Your task to perform on an android device: Open Chrome and go to settings Image 0: 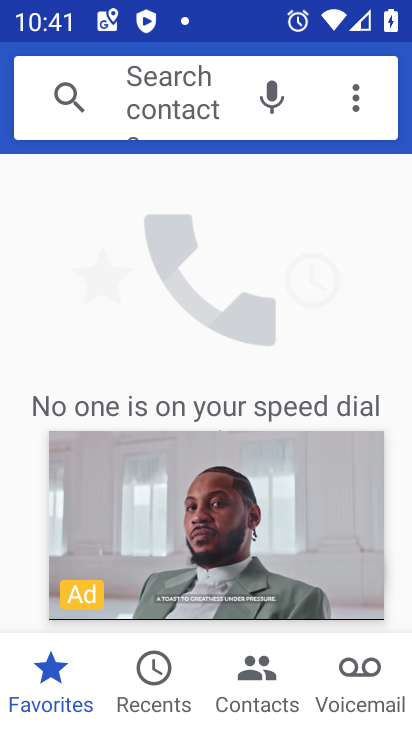
Step 0: press home button
Your task to perform on an android device: Open Chrome and go to settings Image 1: 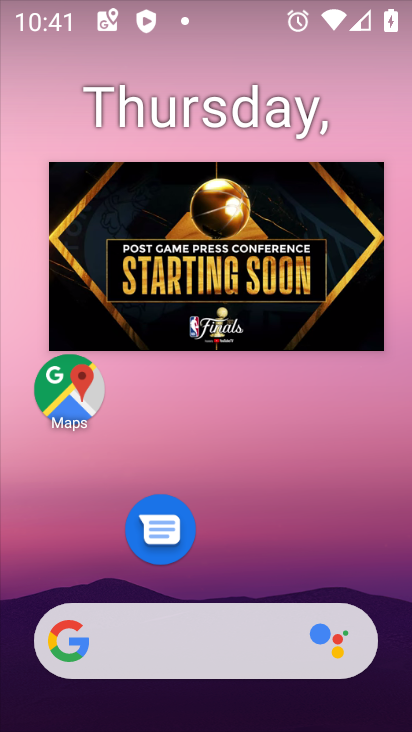
Step 1: click (291, 271)
Your task to perform on an android device: Open Chrome and go to settings Image 2: 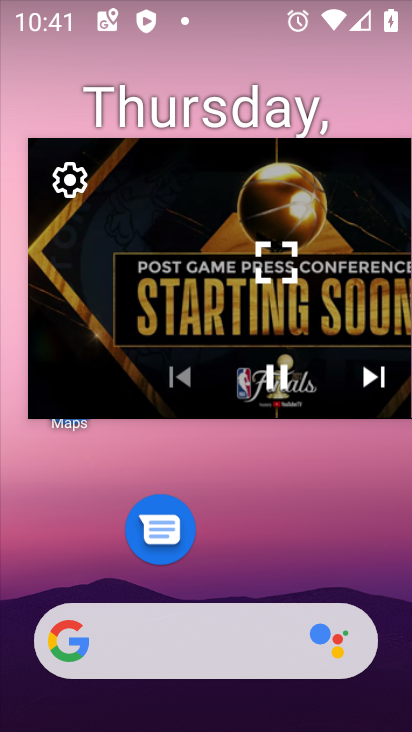
Step 2: click (285, 257)
Your task to perform on an android device: Open Chrome and go to settings Image 3: 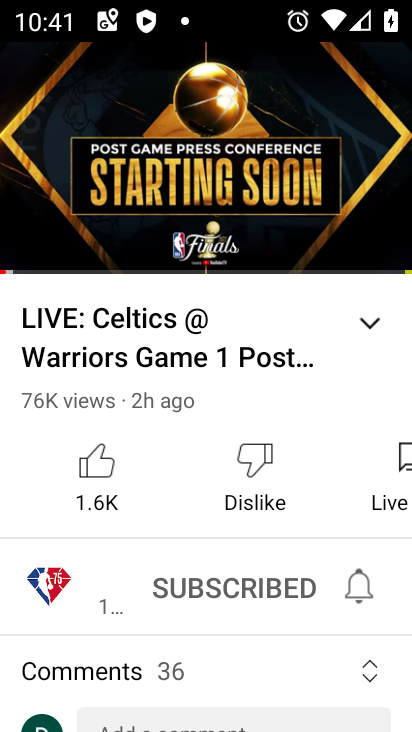
Step 3: drag from (88, 73) to (68, 553)
Your task to perform on an android device: Open Chrome and go to settings Image 4: 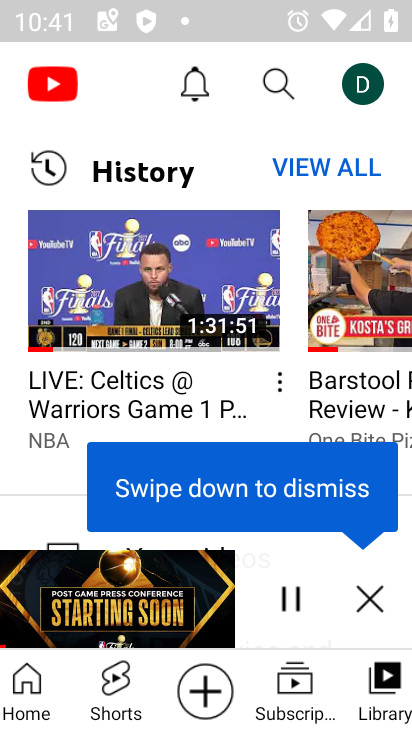
Step 4: click (367, 596)
Your task to perform on an android device: Open Chrome and go to settings Image 5: 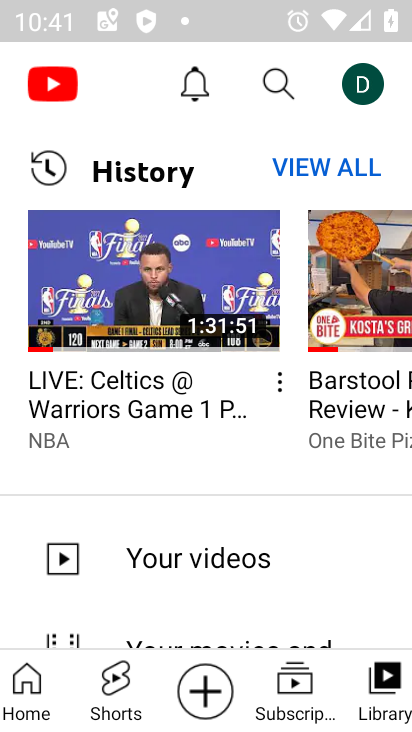
Step 5: press home button
Your task to perform on an android device: Open Chrome and go to settings Image 6: 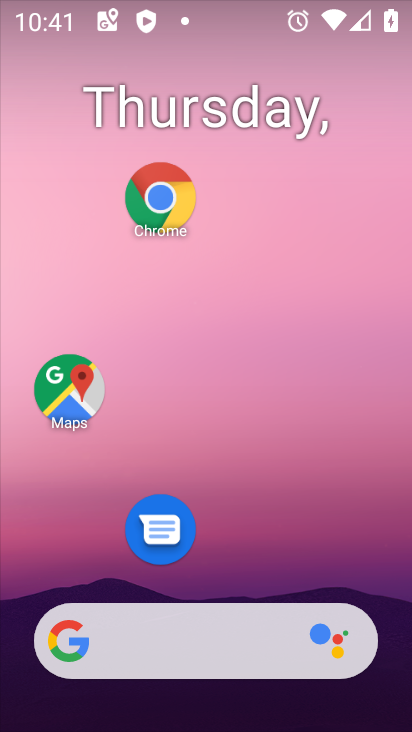
Step 6: click (160, 200)
Your task to perform on an android device: Open Chrome and go to settings Image 7: 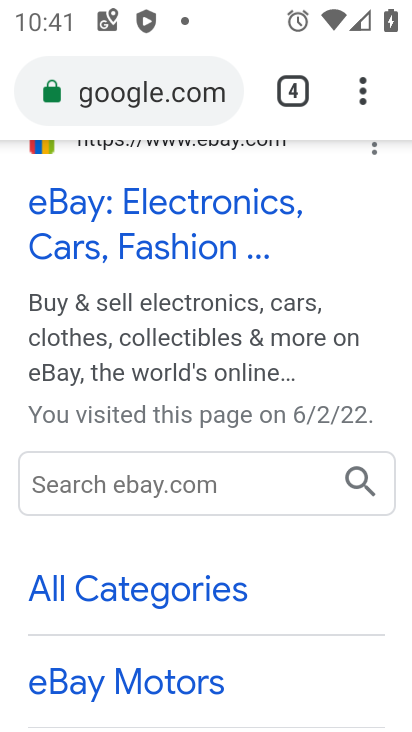
Step 7: click (361, 86)
Your task to perform on an android device: Open Chrome and go to settings Image 8: 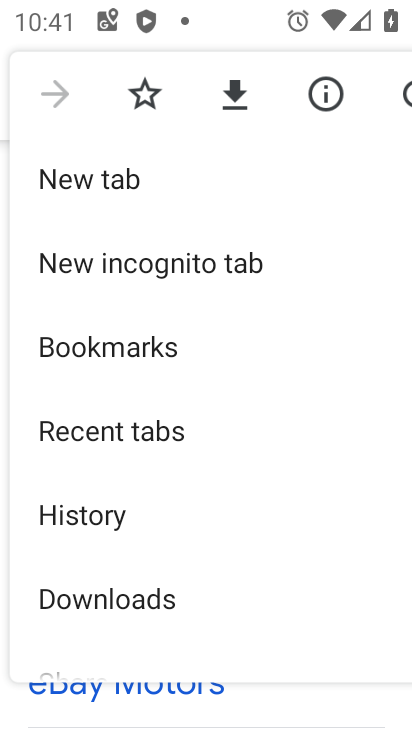
Step 8: drag from (264, 580) to (238, 197)
Your task to perform on an android device: Open Chrome and go to settings Image 9: 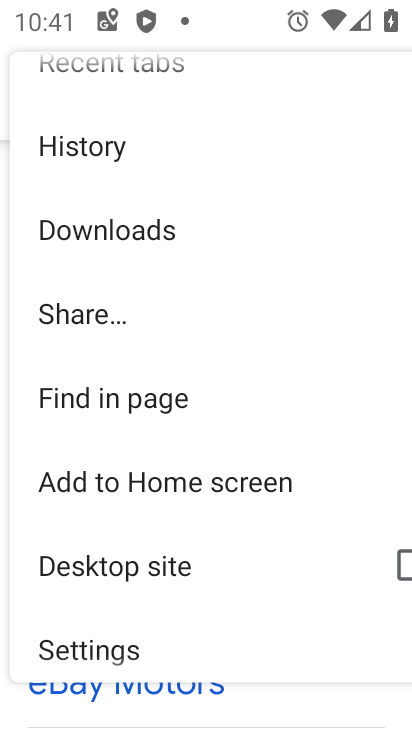
Step 9: click (95, 643)
Your task to perform on an android device: Open Chrome and go to settings Image 10: 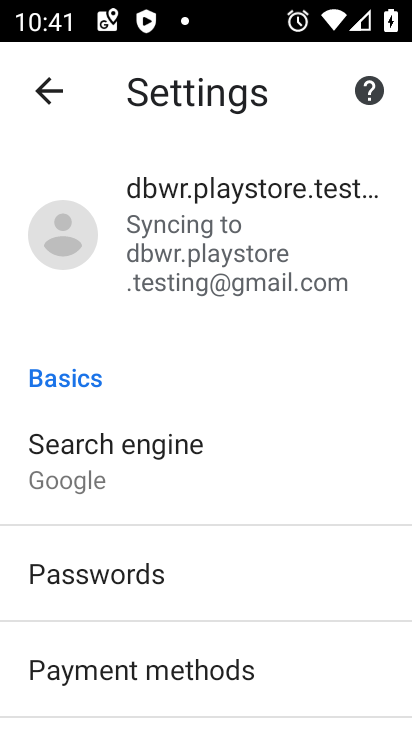
Step 10: task complete